Your task to perform on an android device: Where can I buy a nice beach blanket? Image 0: 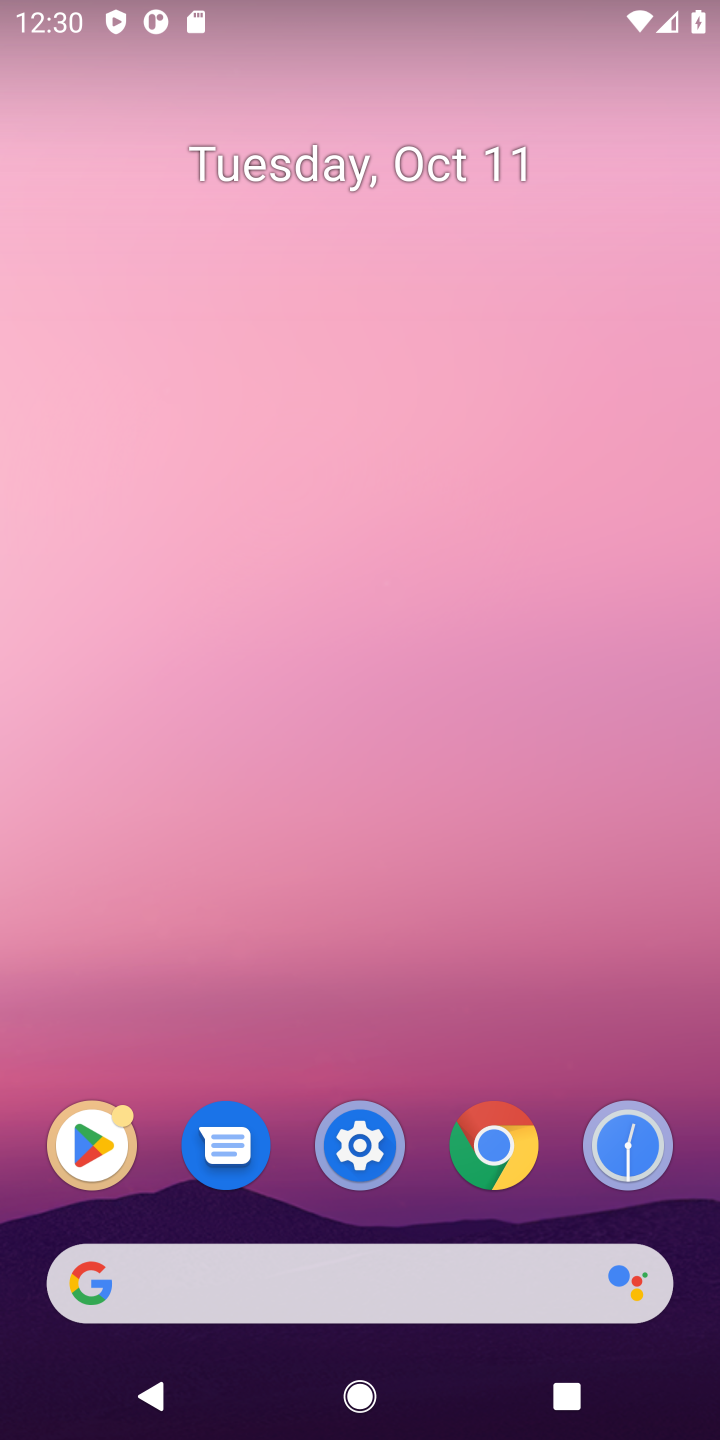
Step 0: press home button
Your task to perform on an android device: Where can I buy a nice beach blanket? Image 1: 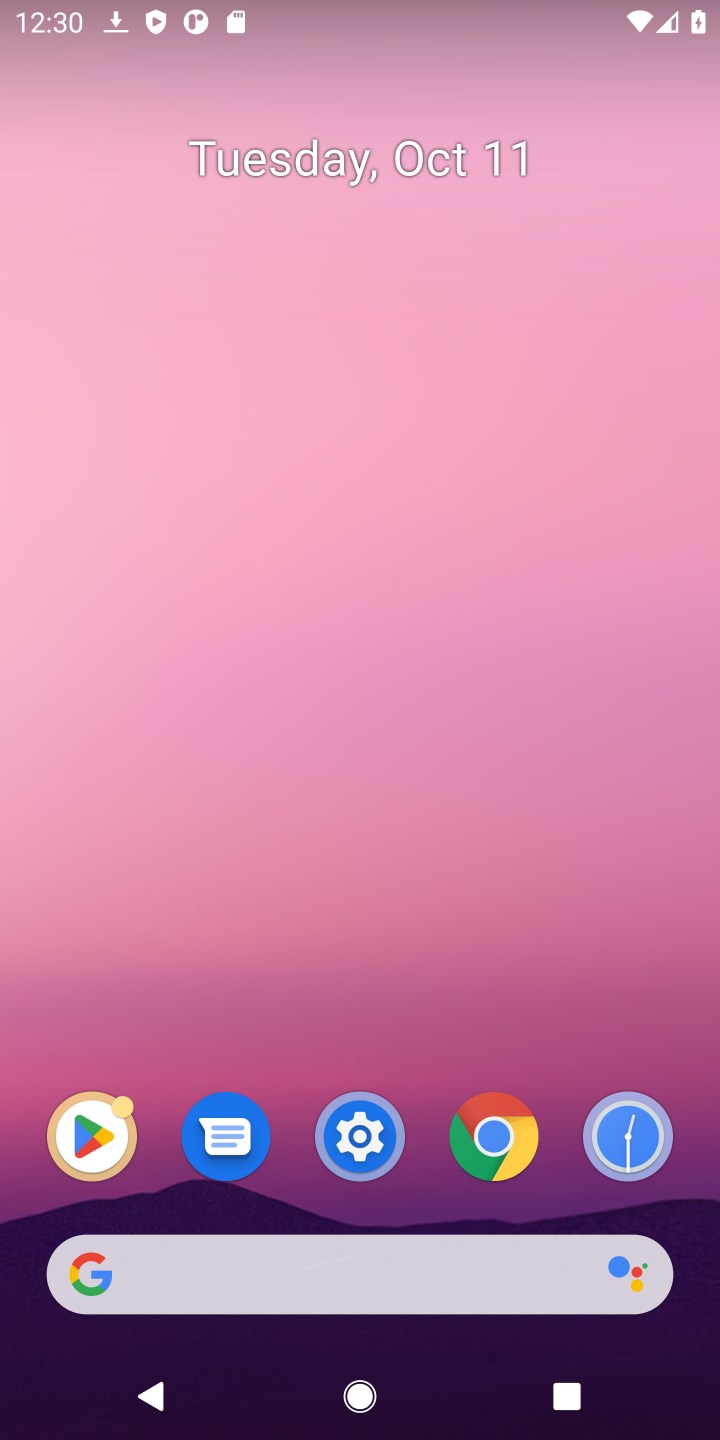
Step 1: click (207, 1274)
Your task to perform on an android device: Where can I buy a nice beach blanket? Image 2: 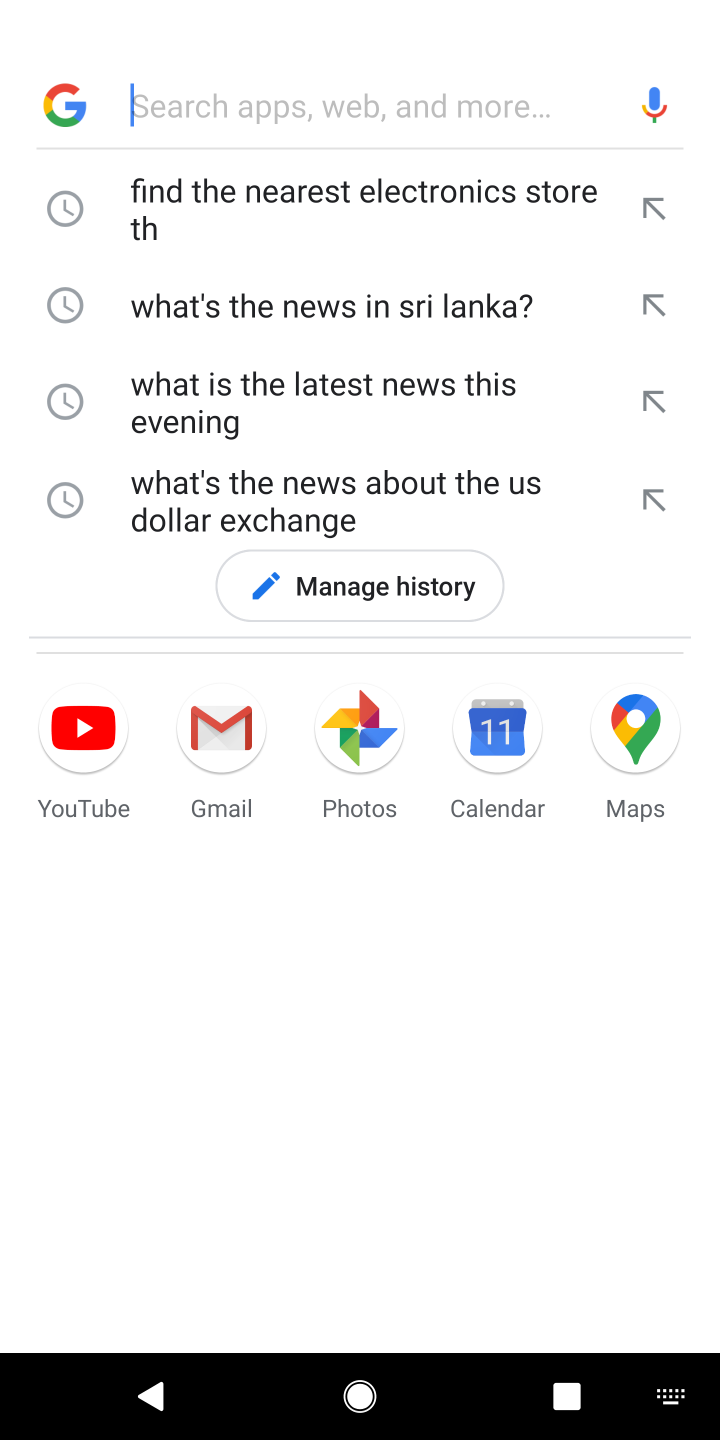
Step 2: type "Where can I buy a nice beach blanket?"
Your task to perform on an android device: Where can I buy a nice beach blanket? Image 3: 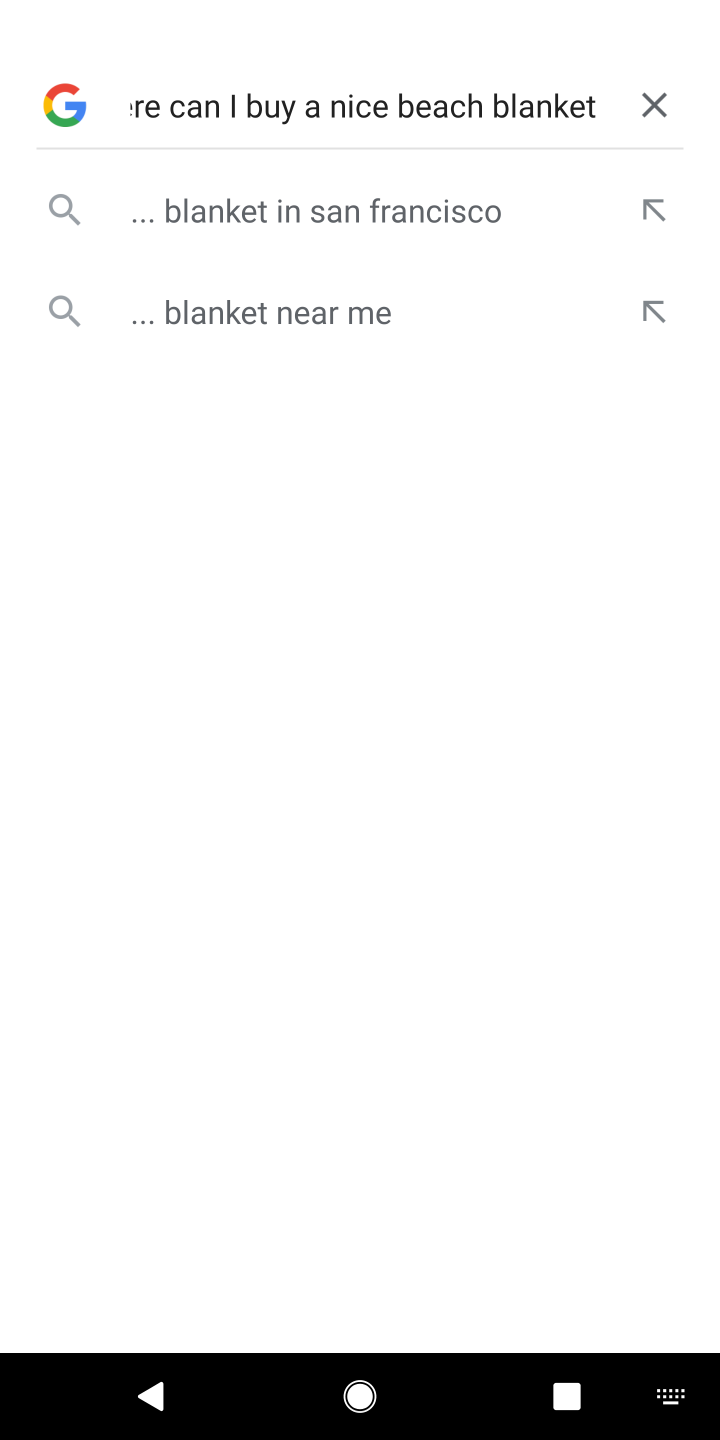
Step 3: press enter
Your task to perform on an android device: Where can I buy a nice beach blanket? Image 4: 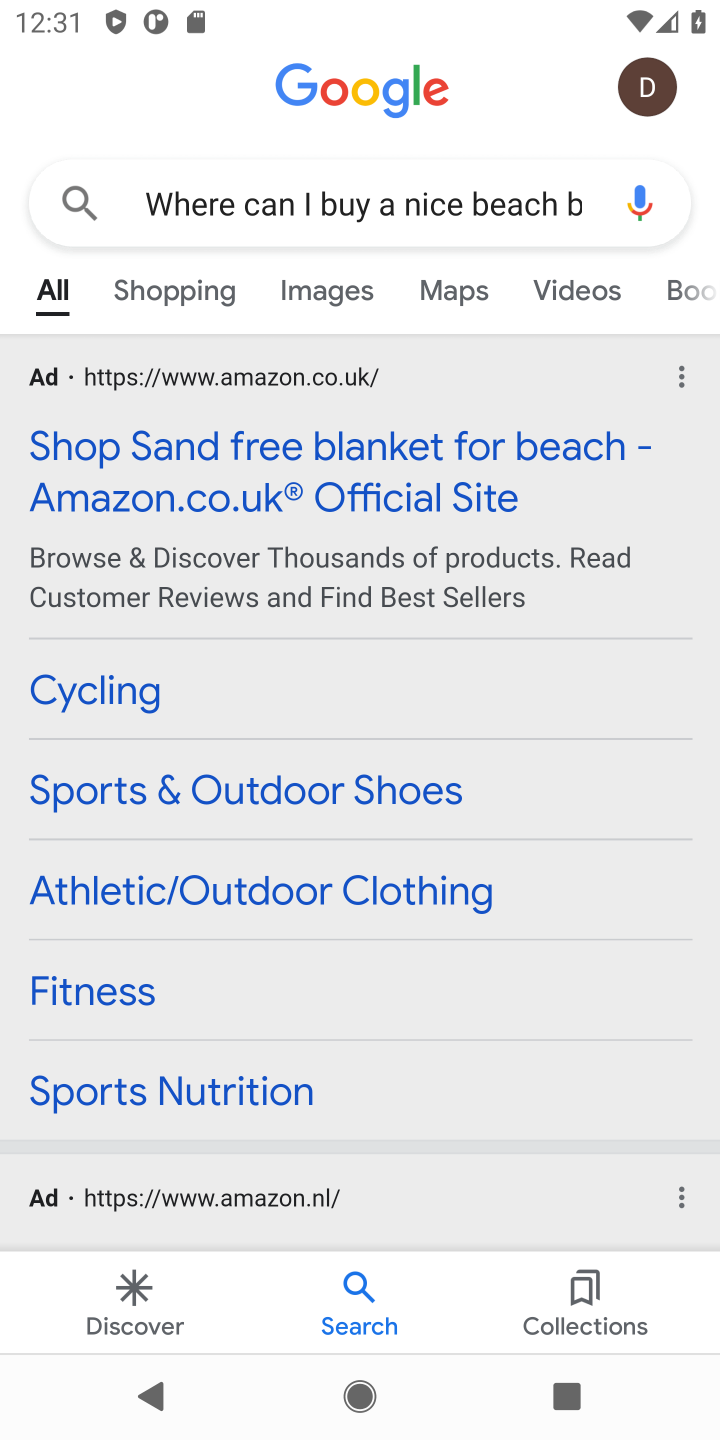
Step 4: drag from (517, 980) to (521, 704)
Your task to perform on an android device: Where can I buy a nice beach blanket? Image 5: 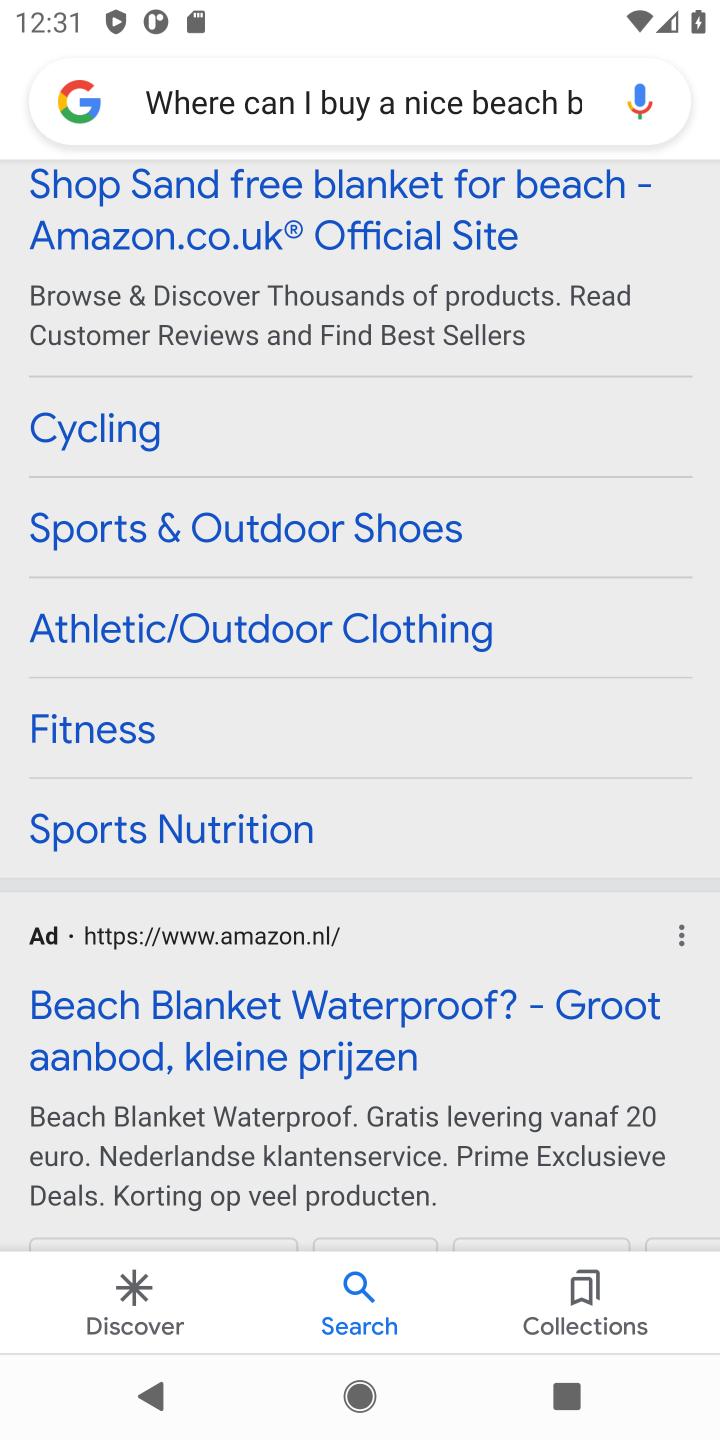
Step 5: click (340, 214)
Your task to perform on an android device: Where can I buy a nice beach blanket? Image 6: 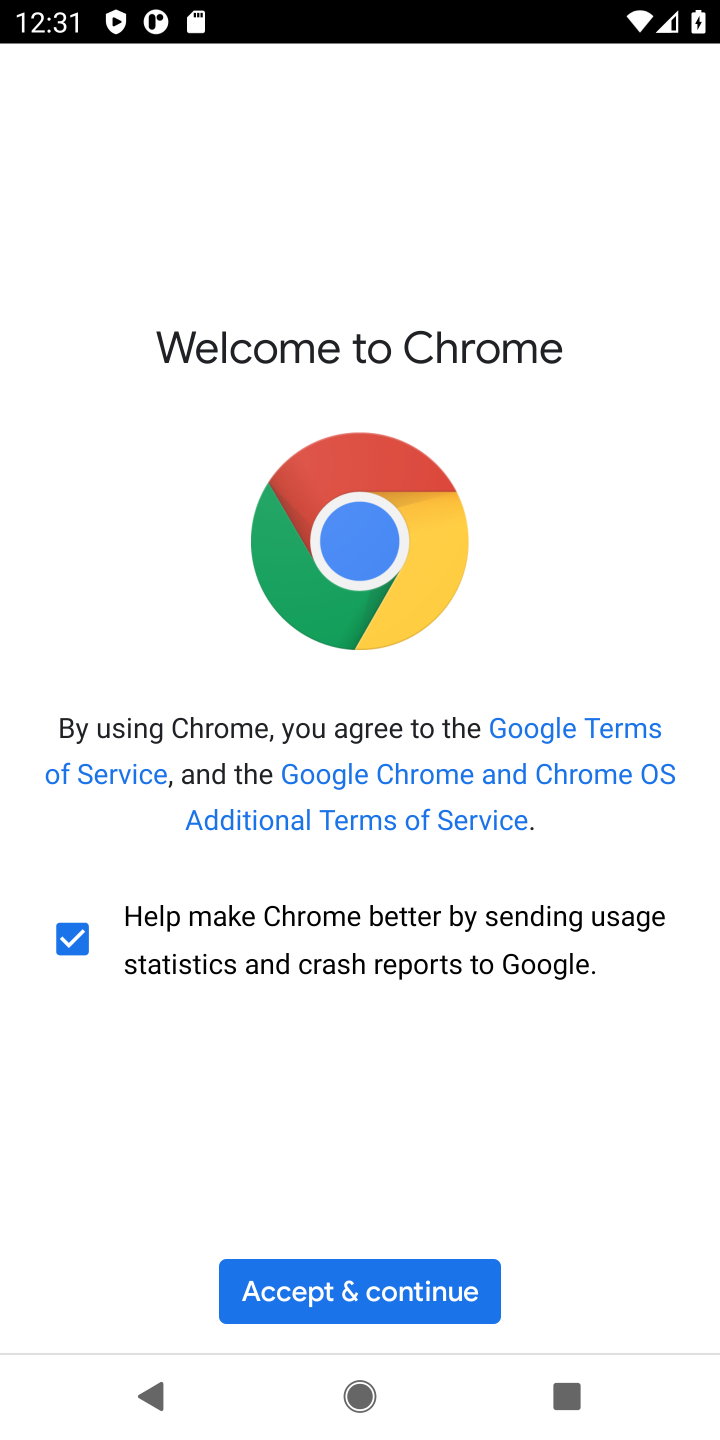
Step 6: click (368, 1299)
Your task to perform on an android device: Where can I buy a nice beach blanket? Image 7: 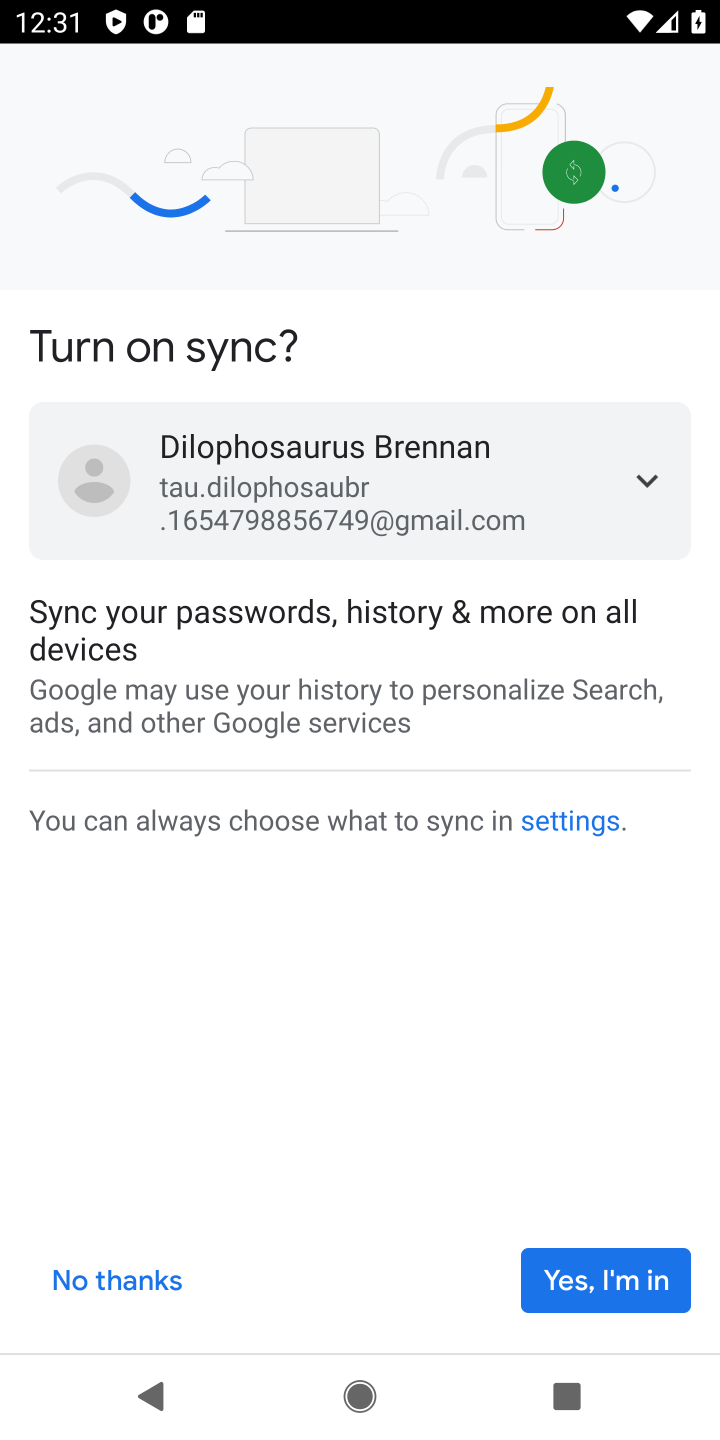
Step 7: click (592, 1306)
Your task to perform on an android device: Where can I buy a nice beach blanket? Image 8: 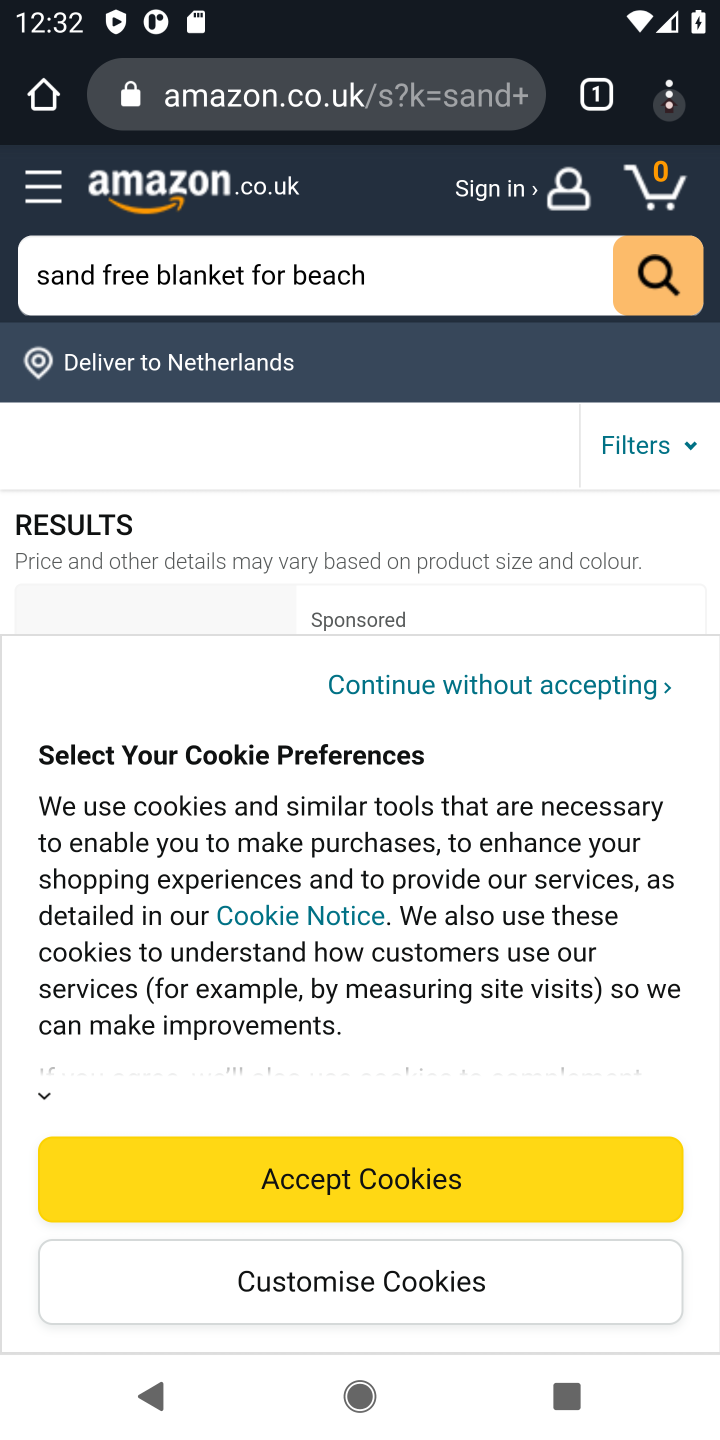
Step 8: click (484, 1184)
Your task to perform on an android device: Where can I buy a nice beach blanket? Image 9: 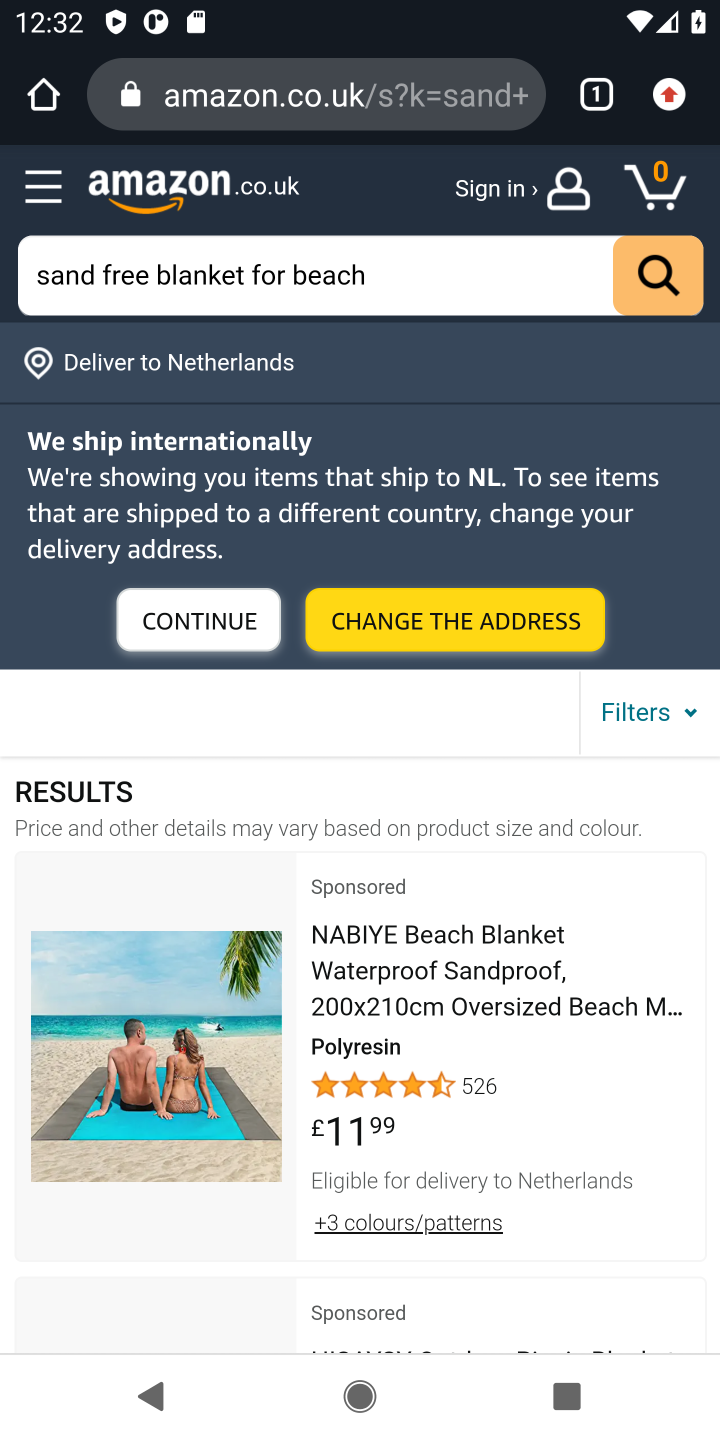
Step 9: task complete